Your task to perform on an android device: Clear the shopping cart on ebay. Add "razer thresher" to the cart on ebay, then select checkout. Image 0: 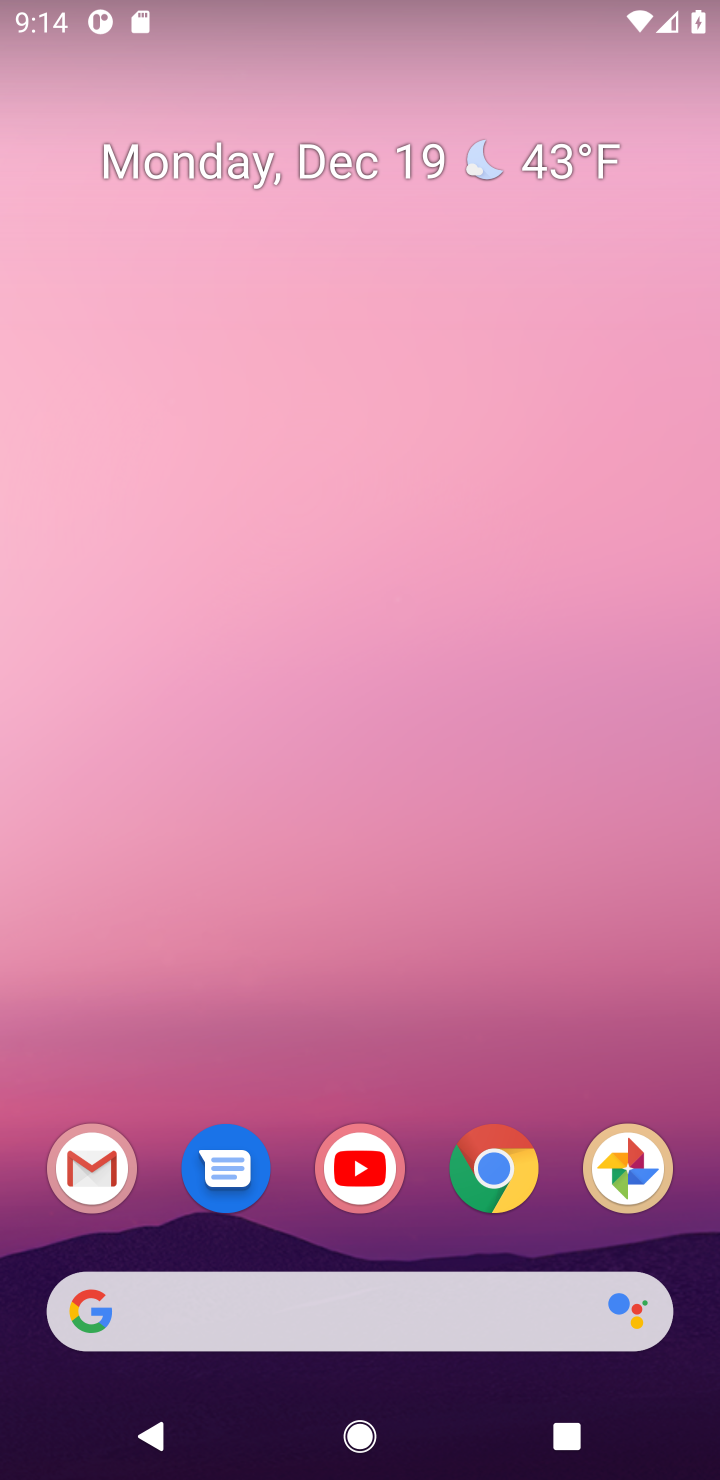
Step 0: click (499, 1173)
Your task to perform on an android device: Clear the shopping cart on ebay. Add "razer thresher" to the cart on ebay, then select checkout. Image 1: 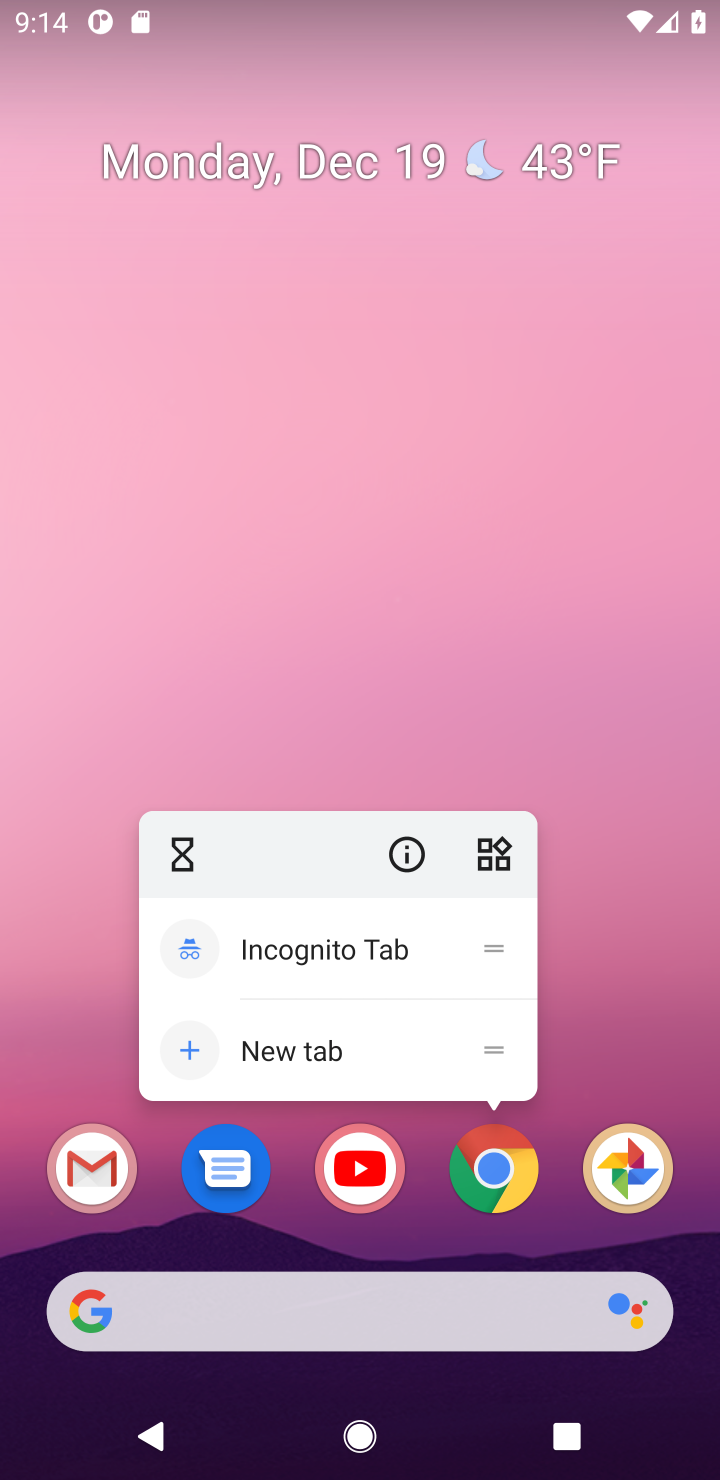
Step 1: click (499, 1173)
Your task to perform on an android device: Clear the shopping cart on ebay. Add "razer thresher" to the cart on ebay, then select checkout. Image 2: 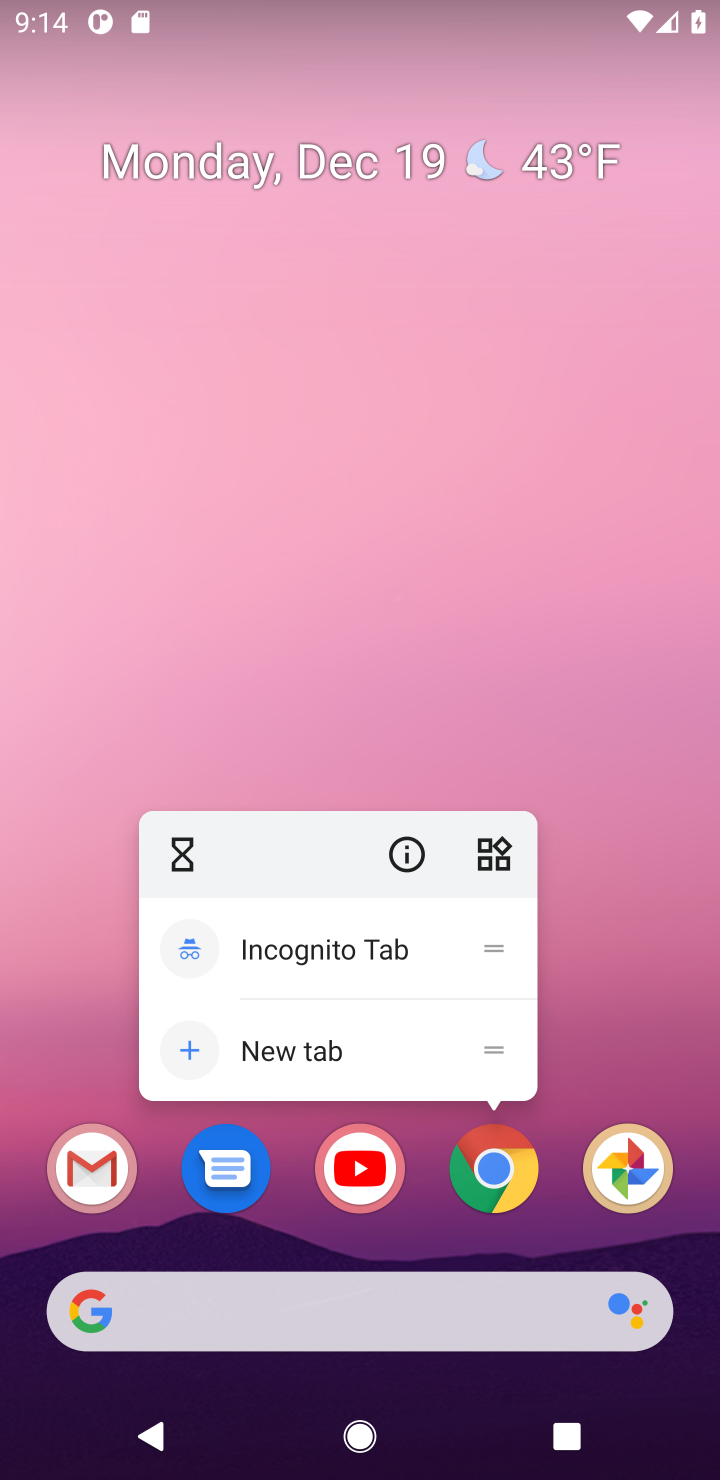
Step 2: click (501, 1194)
Your task to perform on an android device: Clear the shopping cart on ebay. Add "razer thresher" to the cart on ebay, then select checkout. Image 3: 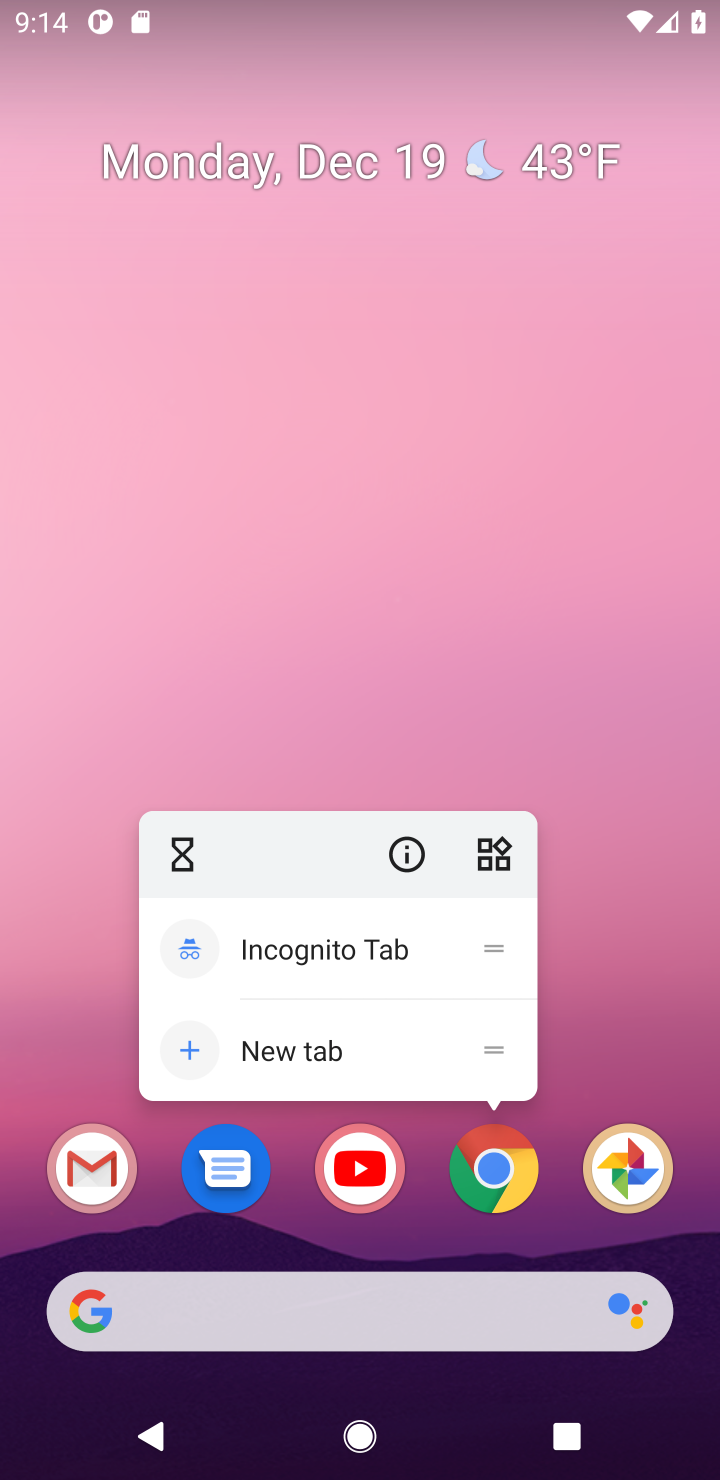
Step 3: click (503, 1181)
Your task to perform on an android device: Clear the shopping cart on ebay. Add "razer thresher" to the cart on ebay, then select checkout. Image 4: 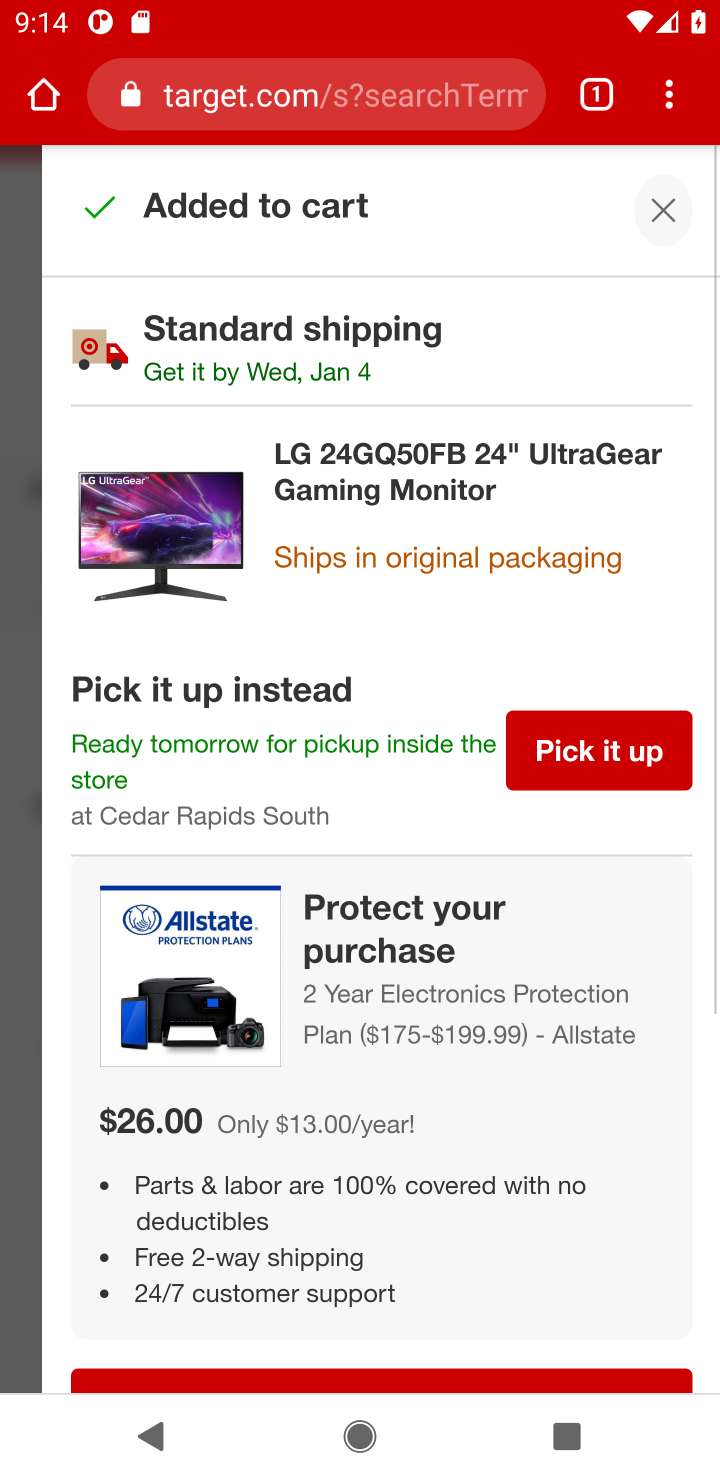
Step 4: click (265, 102)
Your task to perform on an android device: Clear the shopping cart on ebay. Add "razer thresher" to the cart on ebay, then select checkout. Image 5: 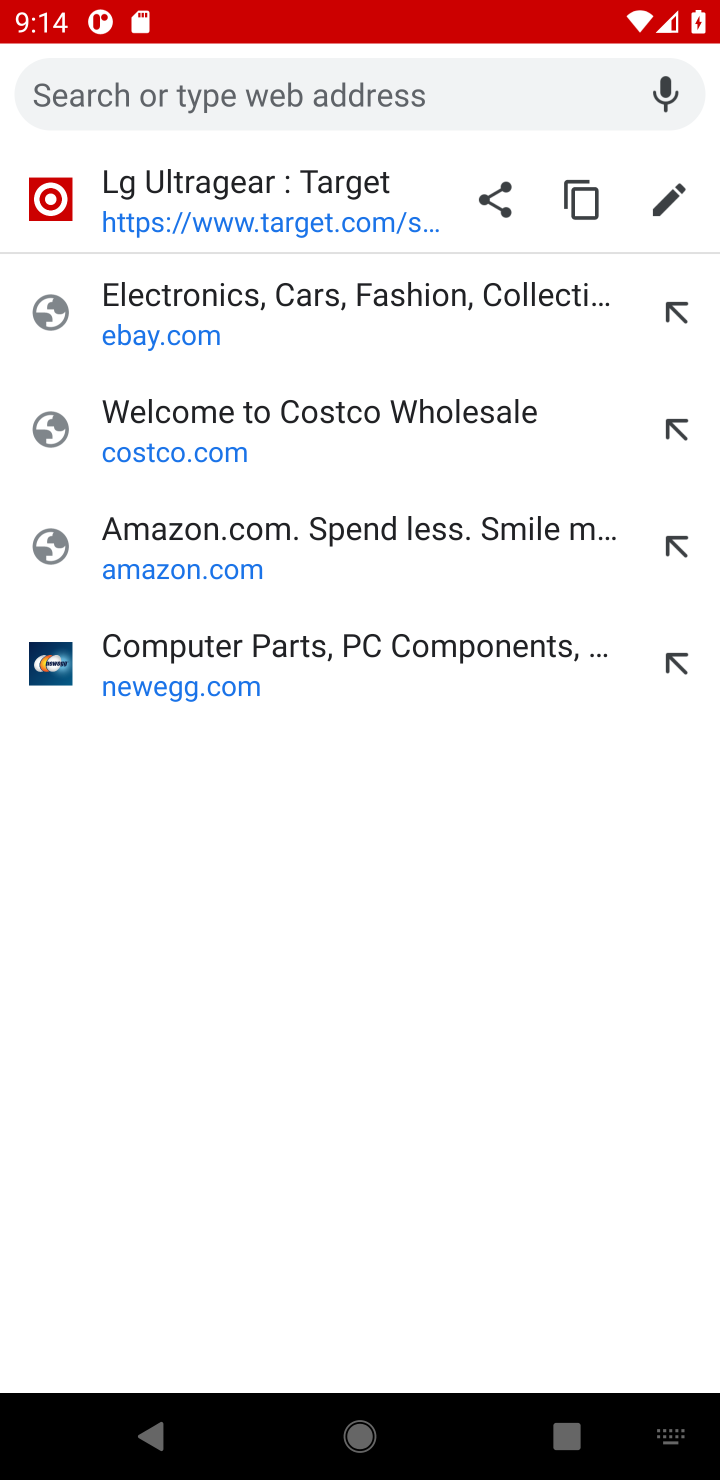
Step 5: click (125, 335)
Your task to perform on an android device: Clear the shopping cart on ebay. Add "razer thresher" to the cart on ebay, then select checkout. Image 6: 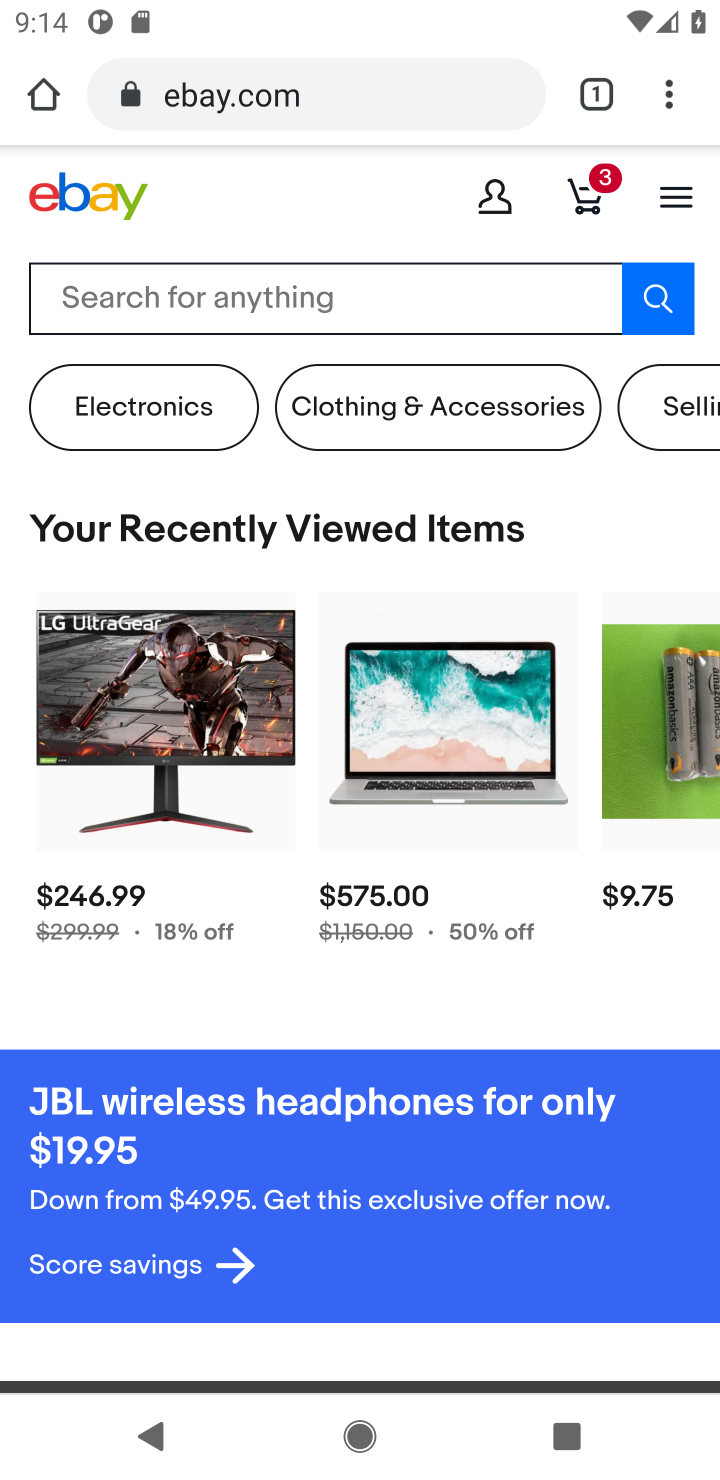
Step 6: click (584, 197)
Your task to perform on an android device: Clear the shopping cart on ebay. Add "razer thresher" to the cart on ebay, then select checkout. Image 7: 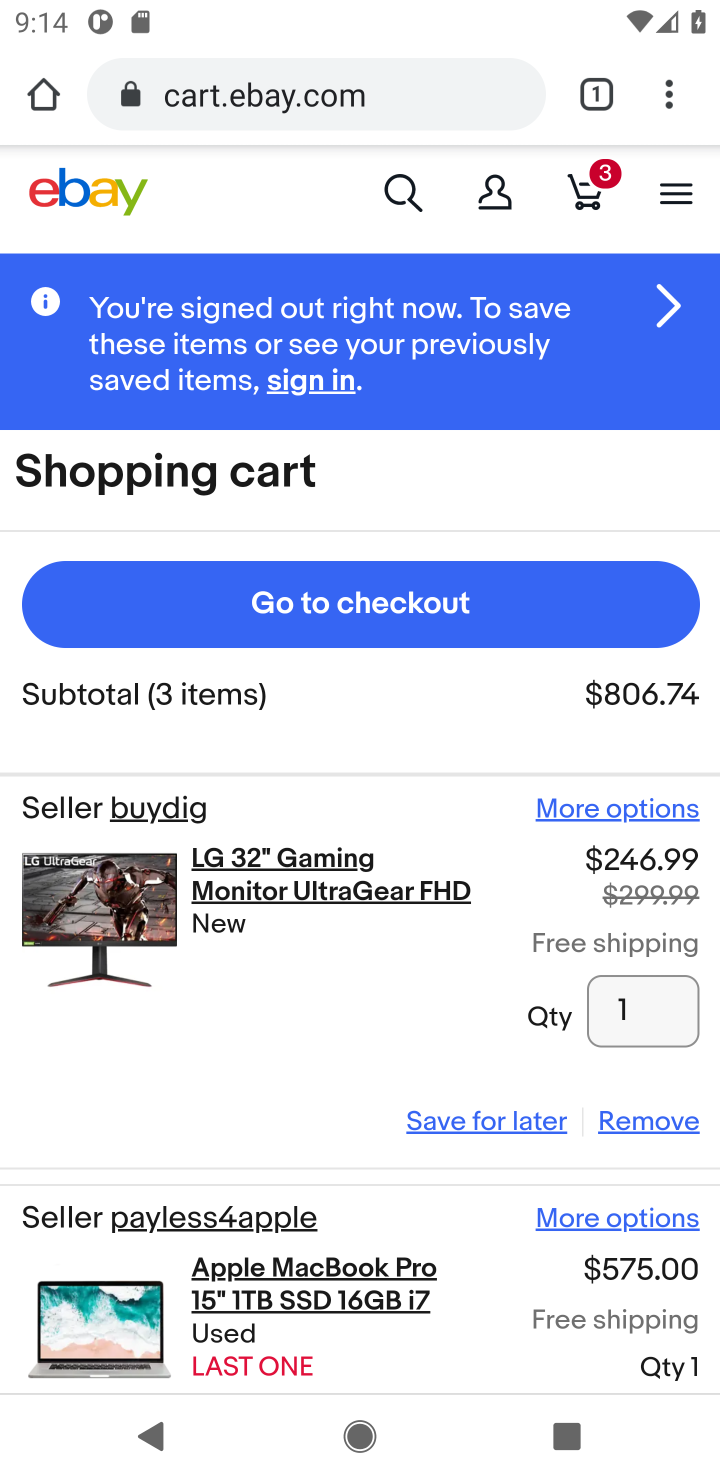
Step 7: click (641, 1120)
Your task to perform on an android device: Clear the shopping cart on ebay. Add "razer thresher" to the cart on ebay, then select checkout. Image 8: 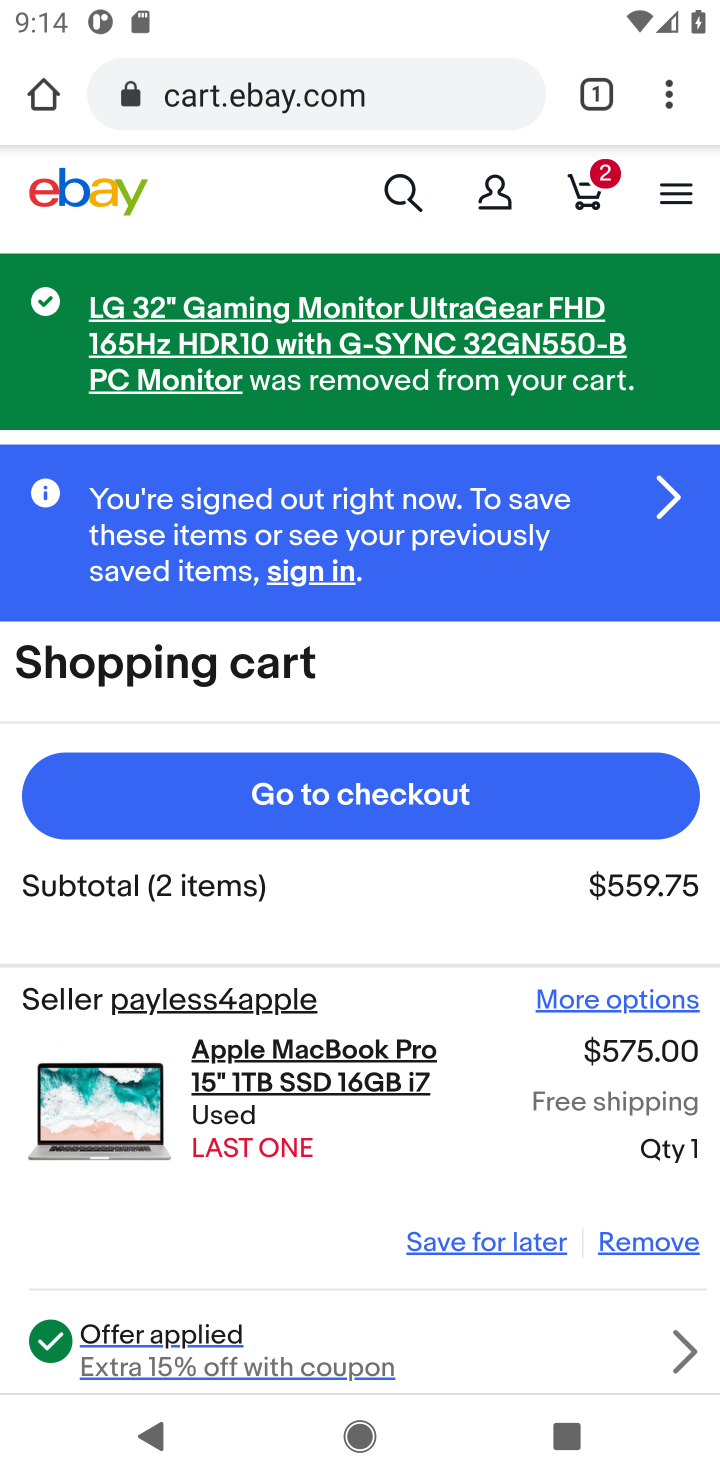
Step 8: click (649, 1236)
Your task to perform on an android device: Clear the shopping cart on ebay. Add "razer thresher" to the cart on ebay, then select checkout. Image 9: 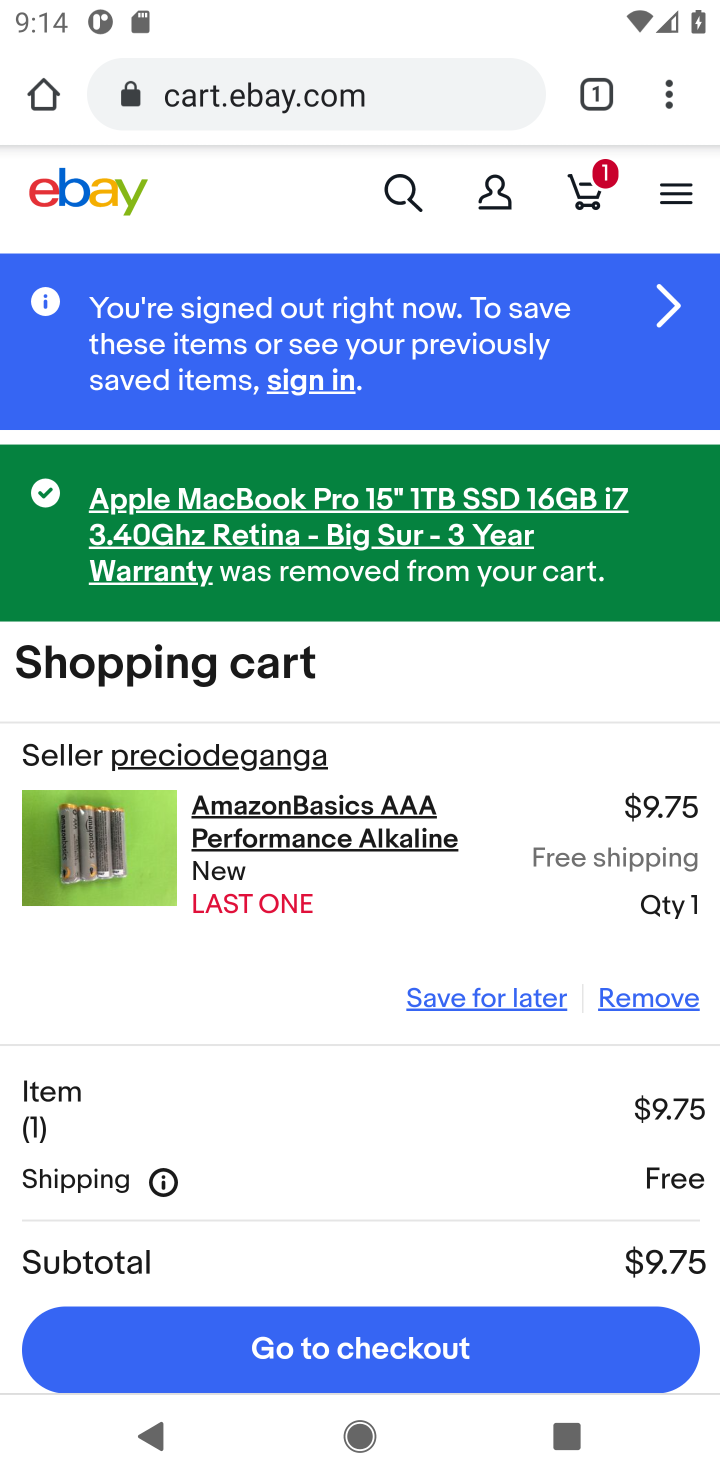
Step 9: click (631, 989)
Your task to perform on an android device: Clear the shopping cart on ebay. Add "razer thresher" to the cart on ebay, then select checkout. Image 10: 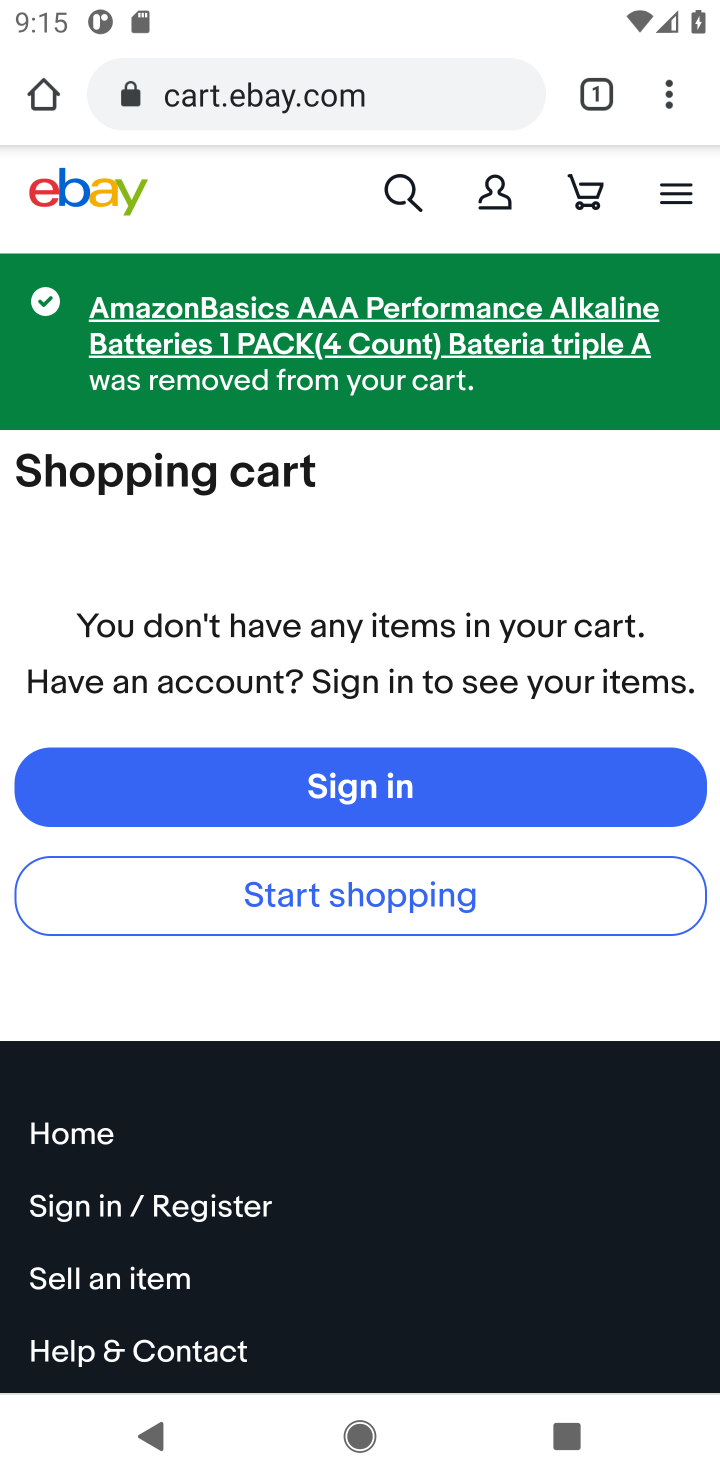
Step 10: click (395, 189)
Your task to perform on an android device: Clear the shopping cart on ebay. Add "razer thresher" to the cart on ebay, then select checkout. Image 11: 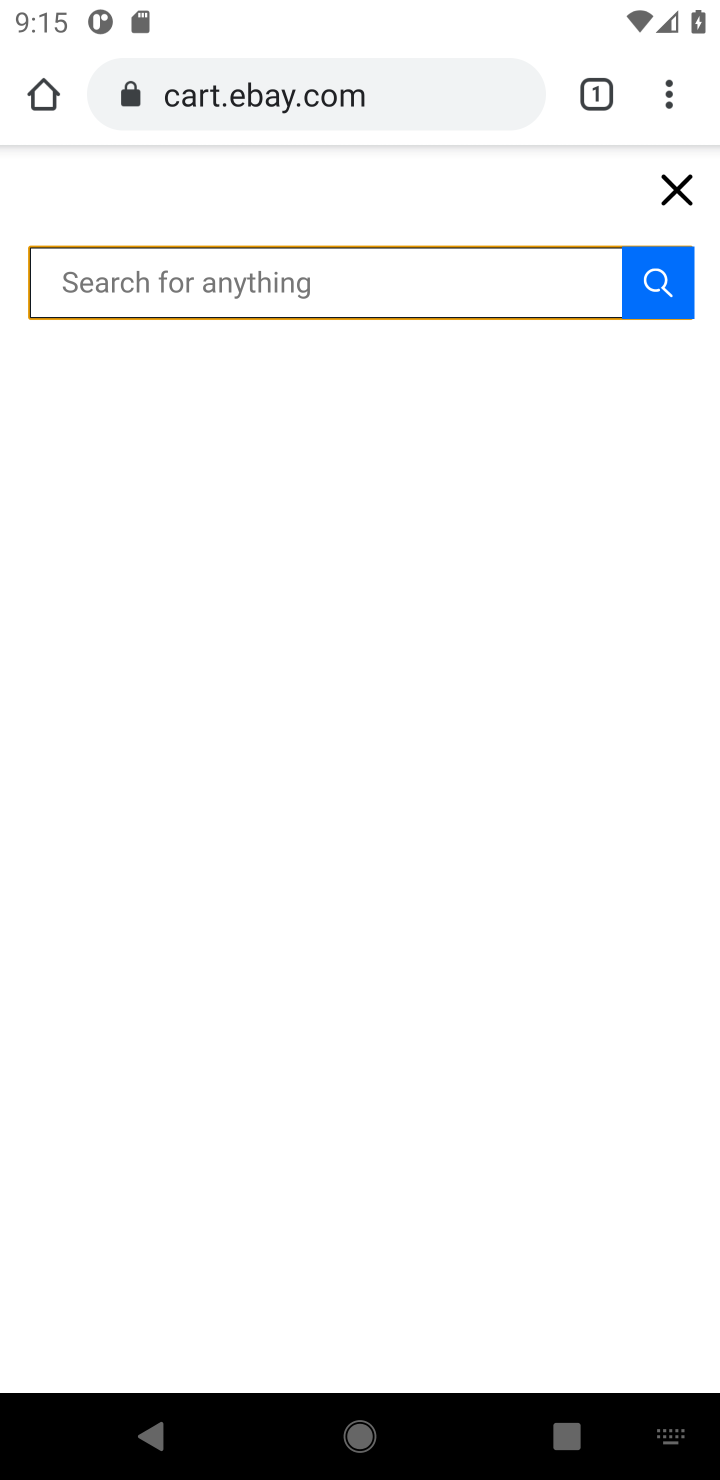
Step 11: type "razer thresher"
Your task to perform on an android device: Clear the shopping cart on ebay. Add "razer thresher" to the cart on ebay, then select checkout. Image 12: 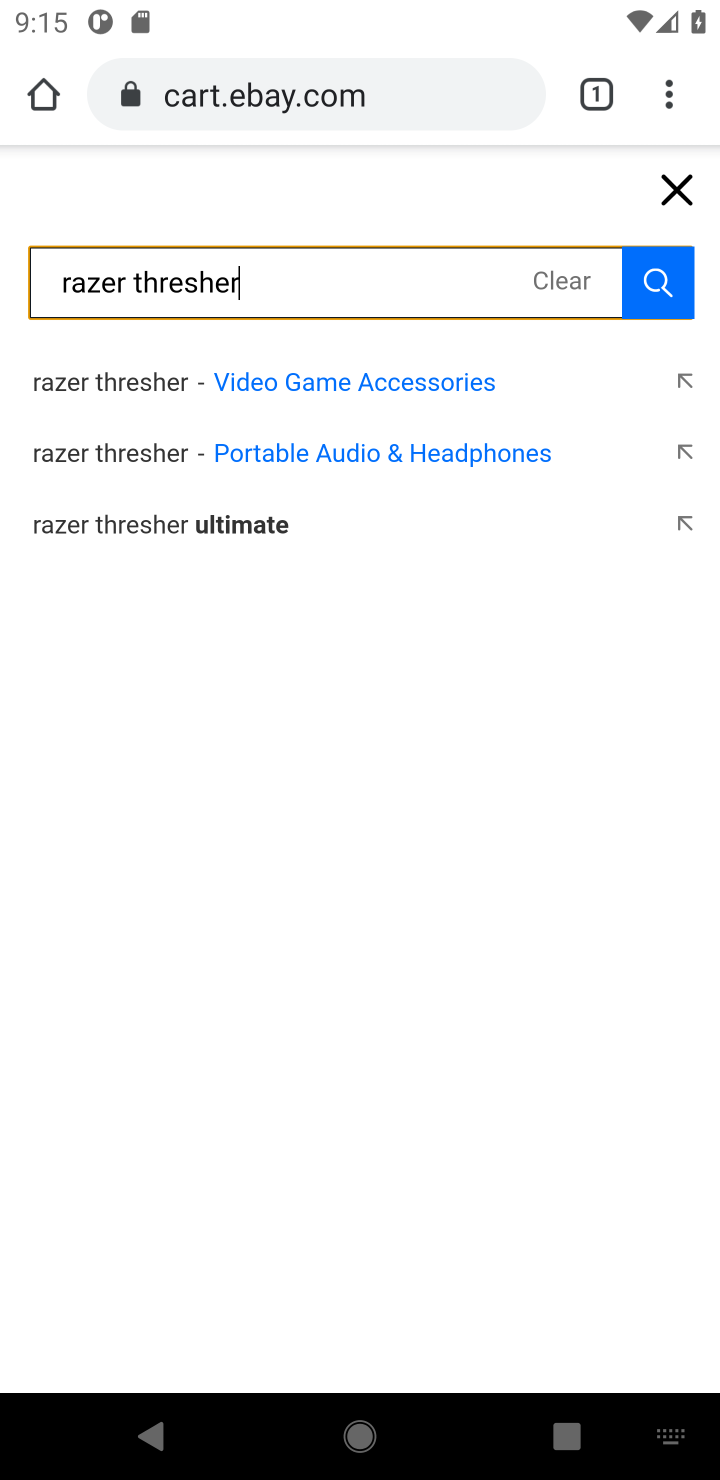
Step 12: click (661, 290)
Your task to perform on an android device: Clear the shopping cart on ebay. Add "razer thresher" to the cart on ebay, then select checkout. Image 13: 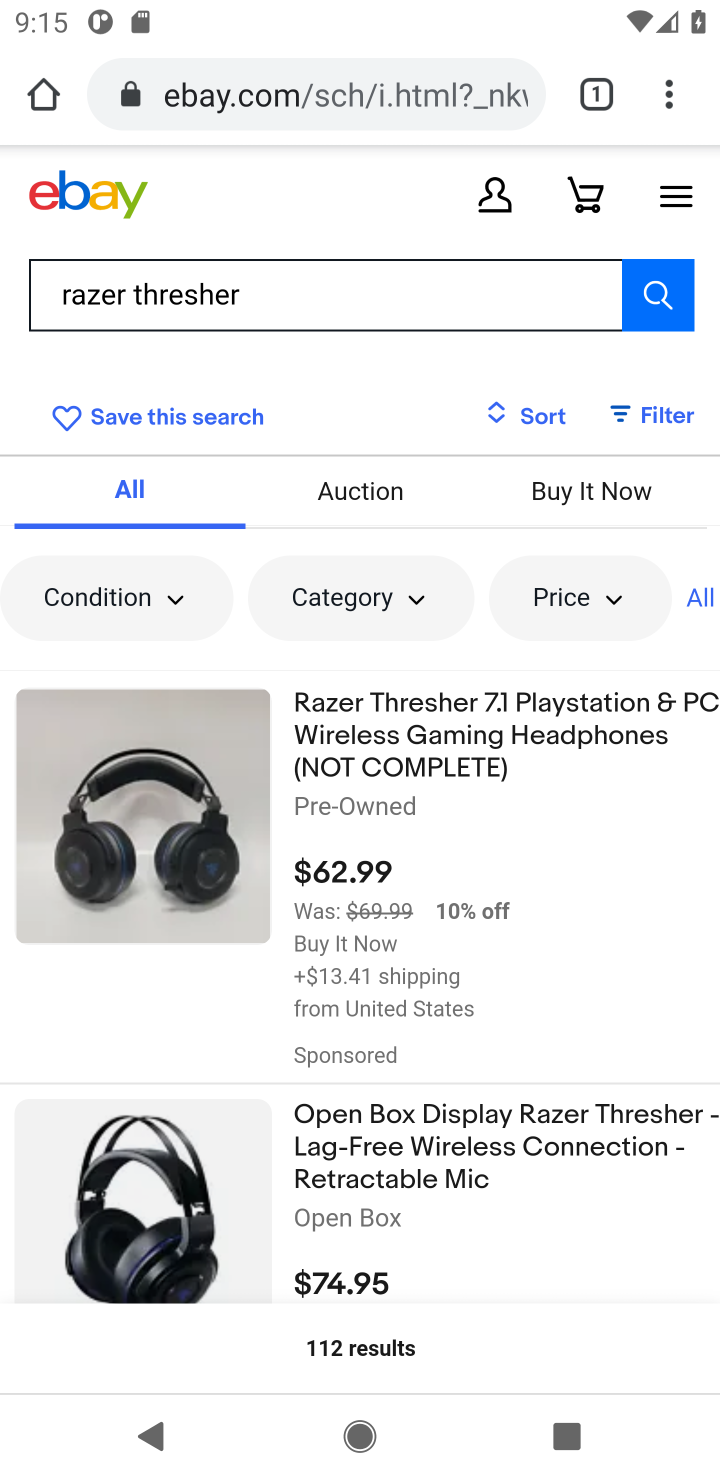
Step 13: click (402, 747)
Your task to perform on an android device: Clear the shopping cart on ebay. Add "razer thresher" to the cart on ebay, then select checkout. Image 14: 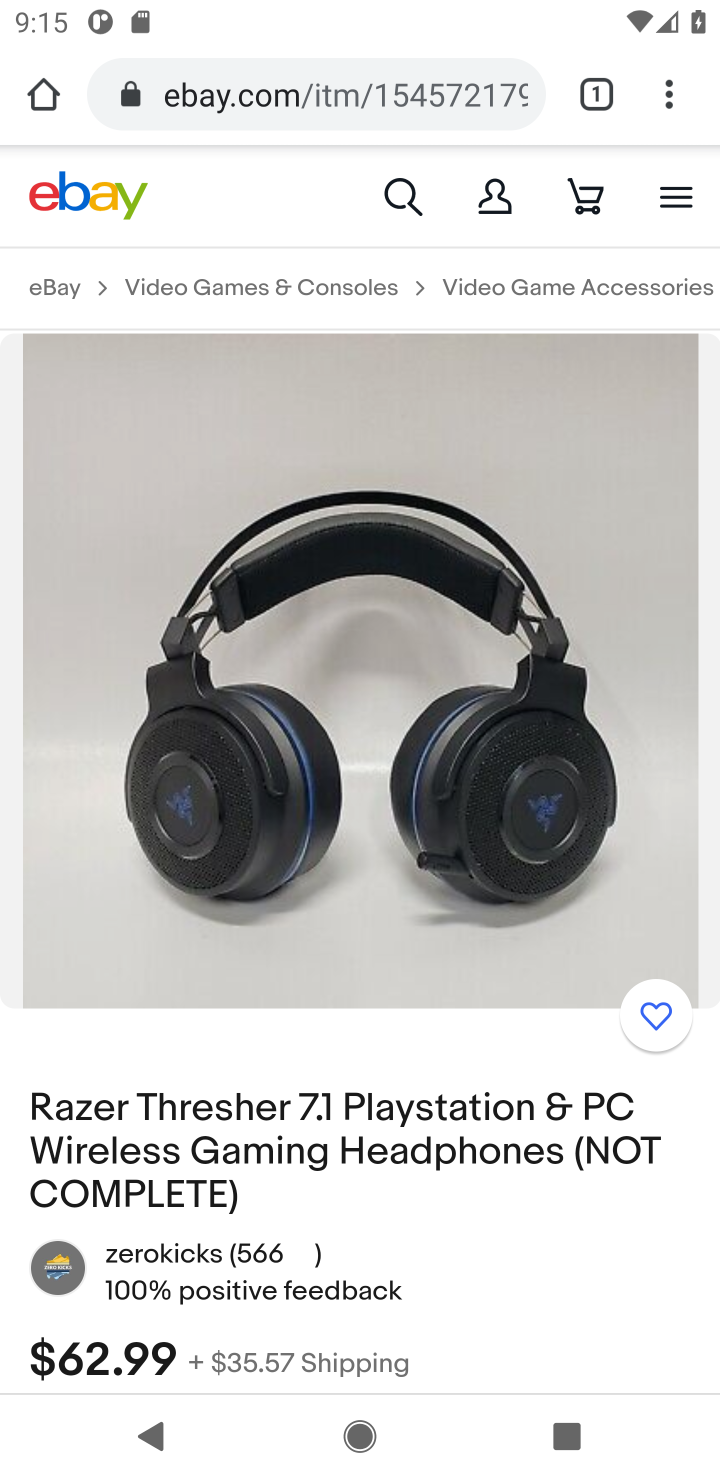
Step 14: drag from (365, 1053) to (350, 560)
Your task to perform on an android device: Clear the shopping cart on ebay. Add "razer thresher" to the cart on ebay, then select checkout. Image 15: 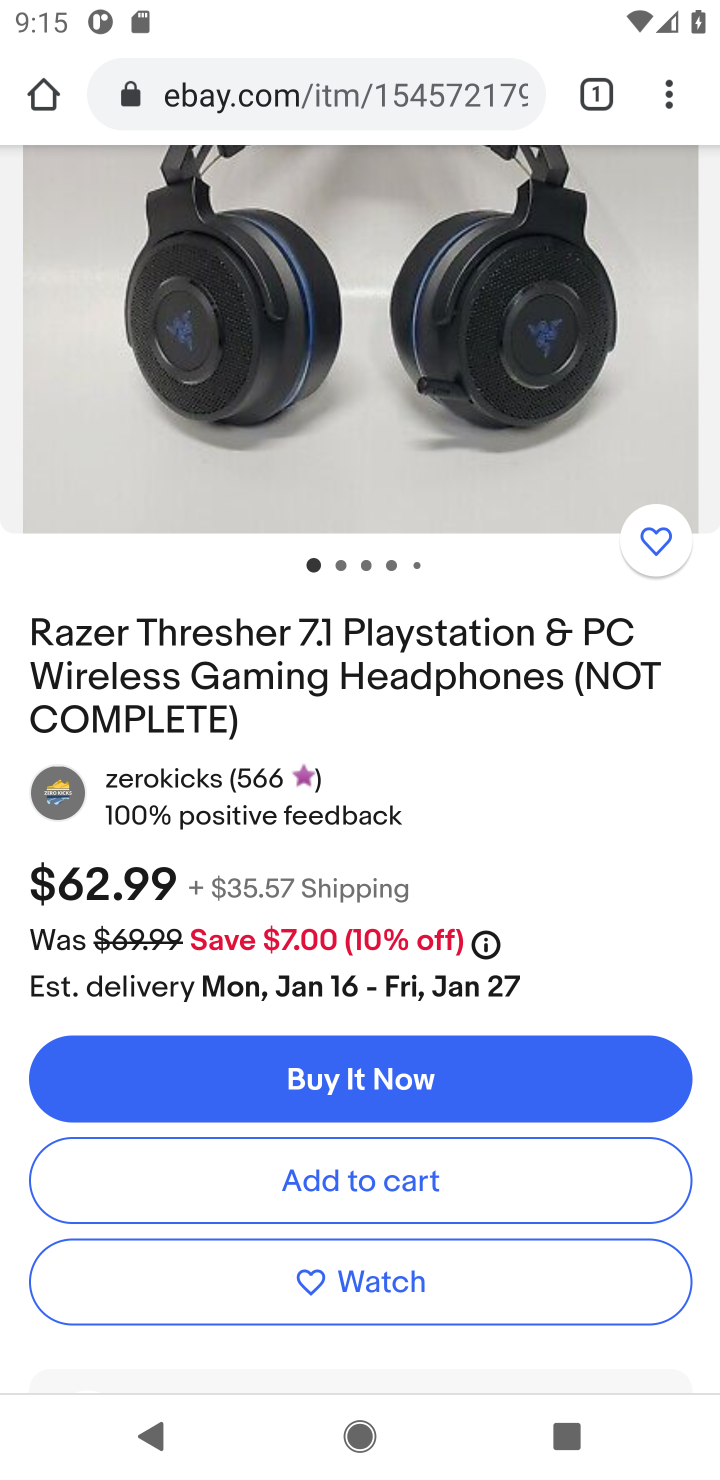
Step 15: click (324, 1191)
Your task to perform on an android device: Clear the shopping cart on ebay. Add "razer thresher" to the cart on ebay, then select checkout. Image 16: 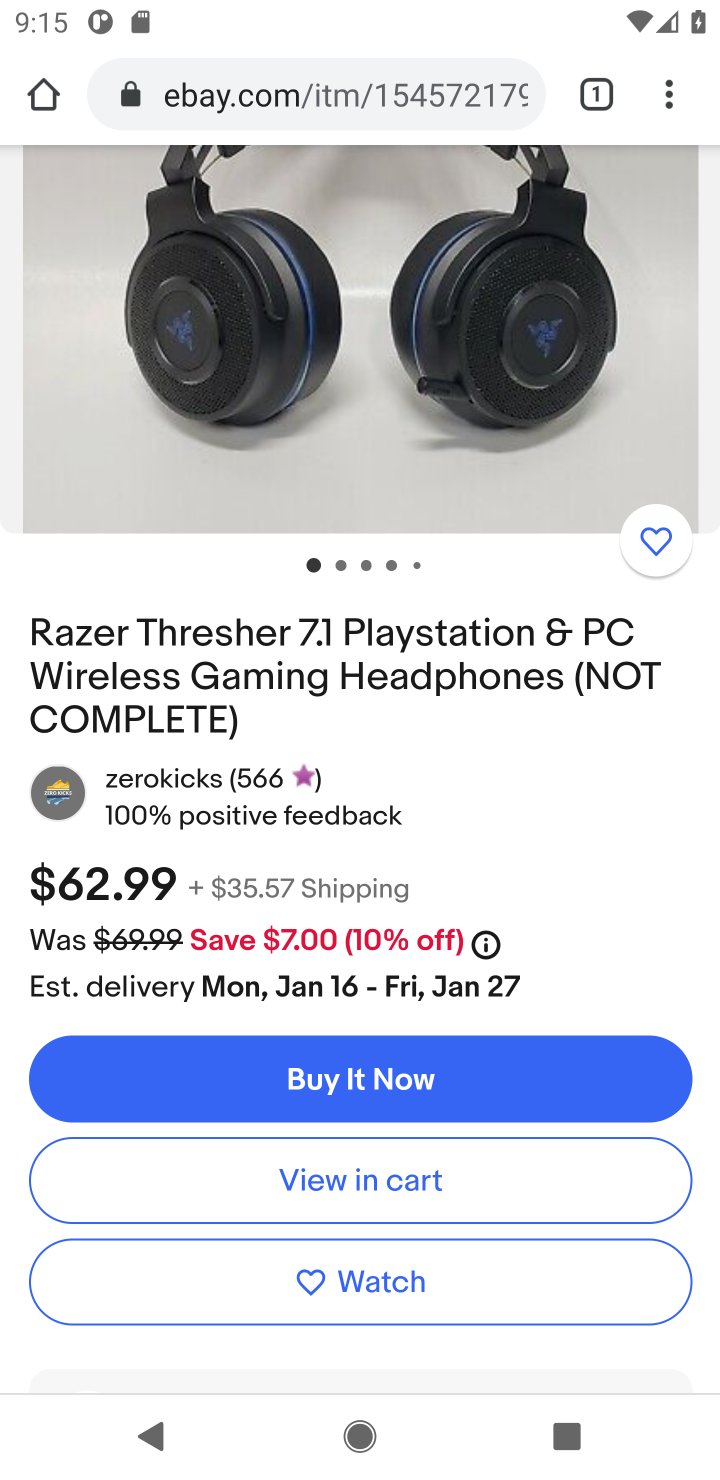
Step 16: click (324, 1191)
Your task to perform on an android device: Clear the shopping cart on ebay. Add "razer thresher" to the cart on ebay, then select checkout. Image 17: 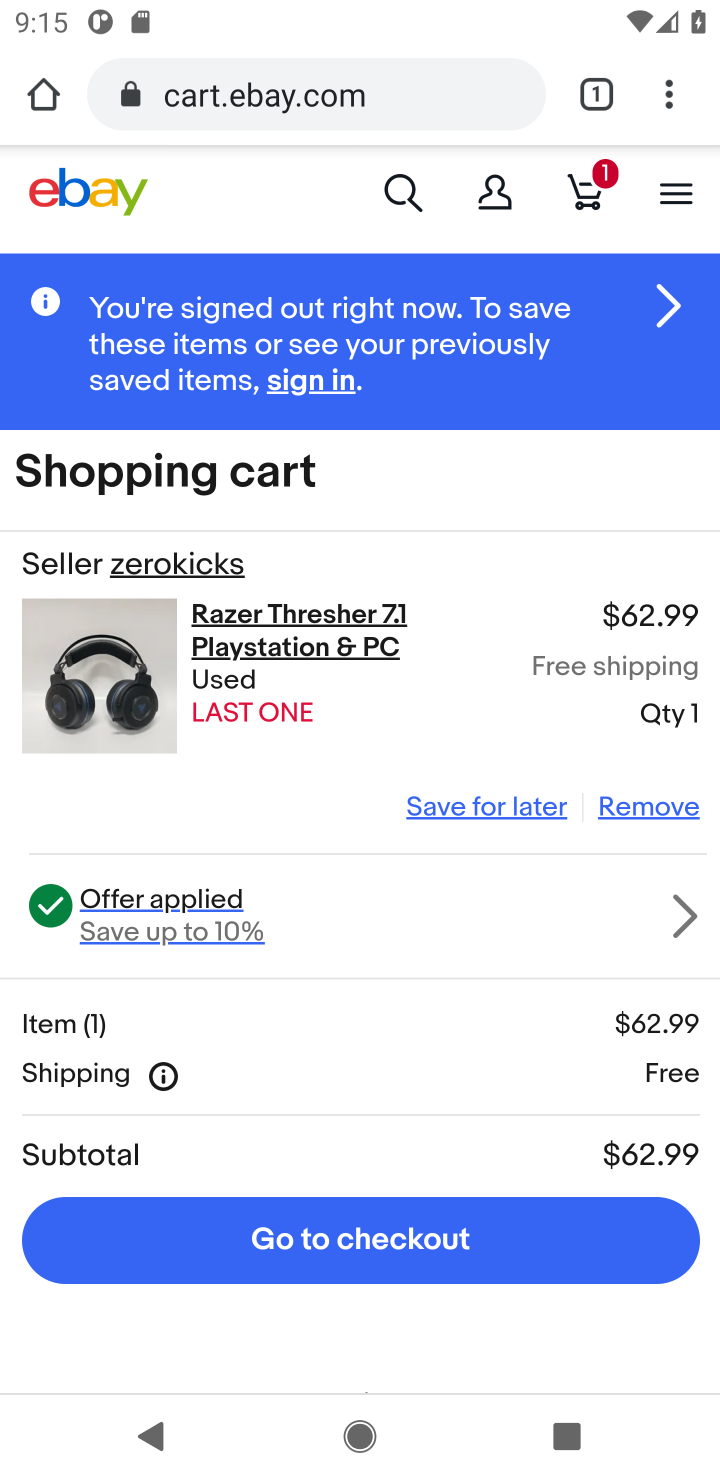
Step 17: click (326, 1250)
Your task to perform on an android device: Clear the shopping cart on ebay. Add "razer thresher" to the cart on ebay, then select checkout. Image 18: 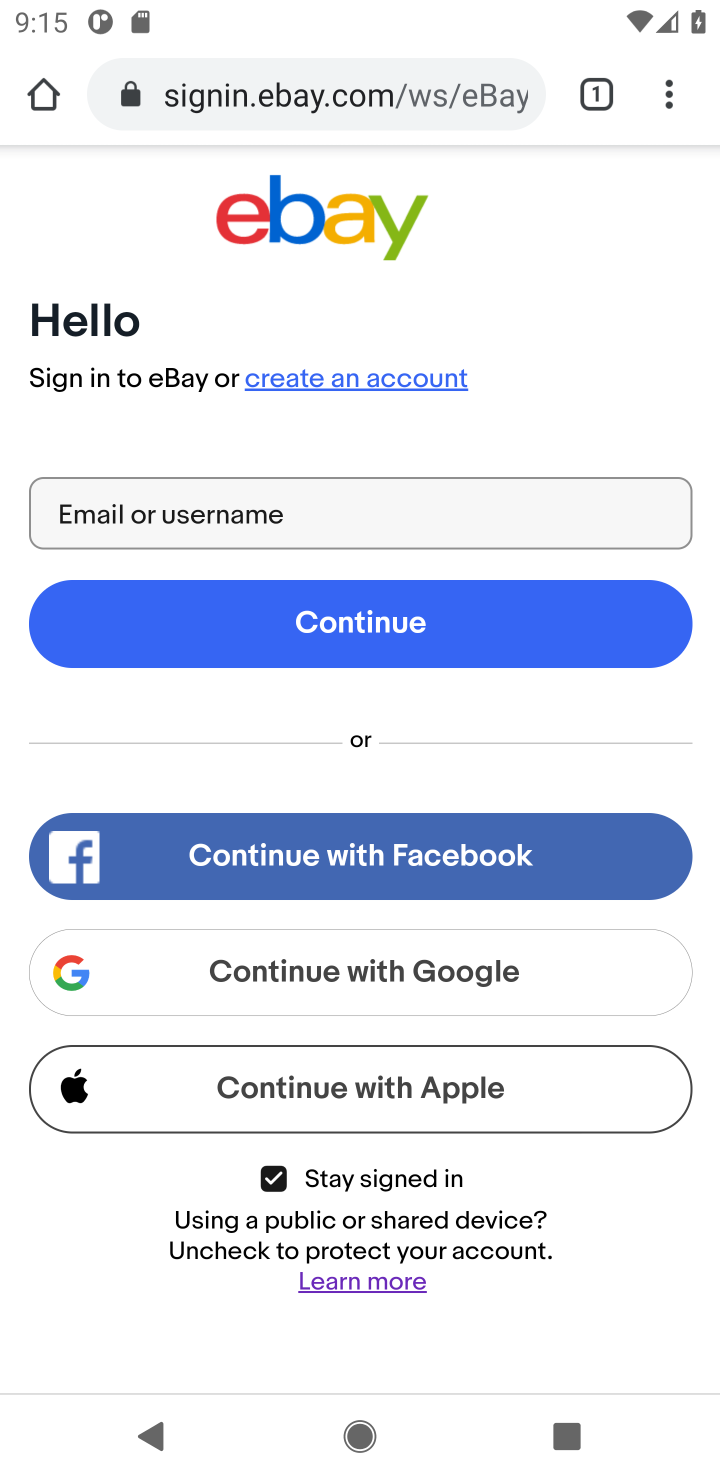
Step 18: task complete